Your task to perform on an android device: change the upload size in google photos Image 0: 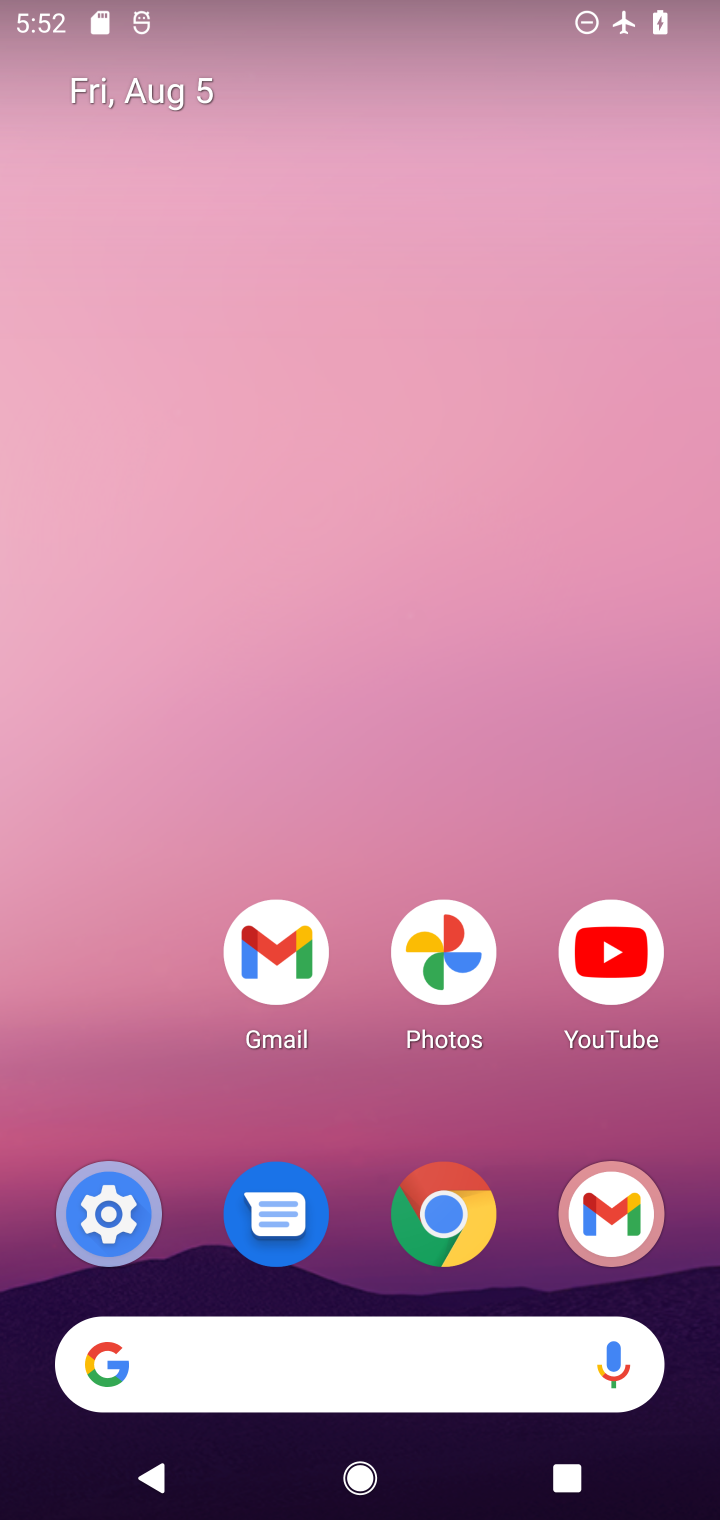
Step 0: click (448, 913)
Your task to perform on an android device: change the upload size in google photos Image 1: 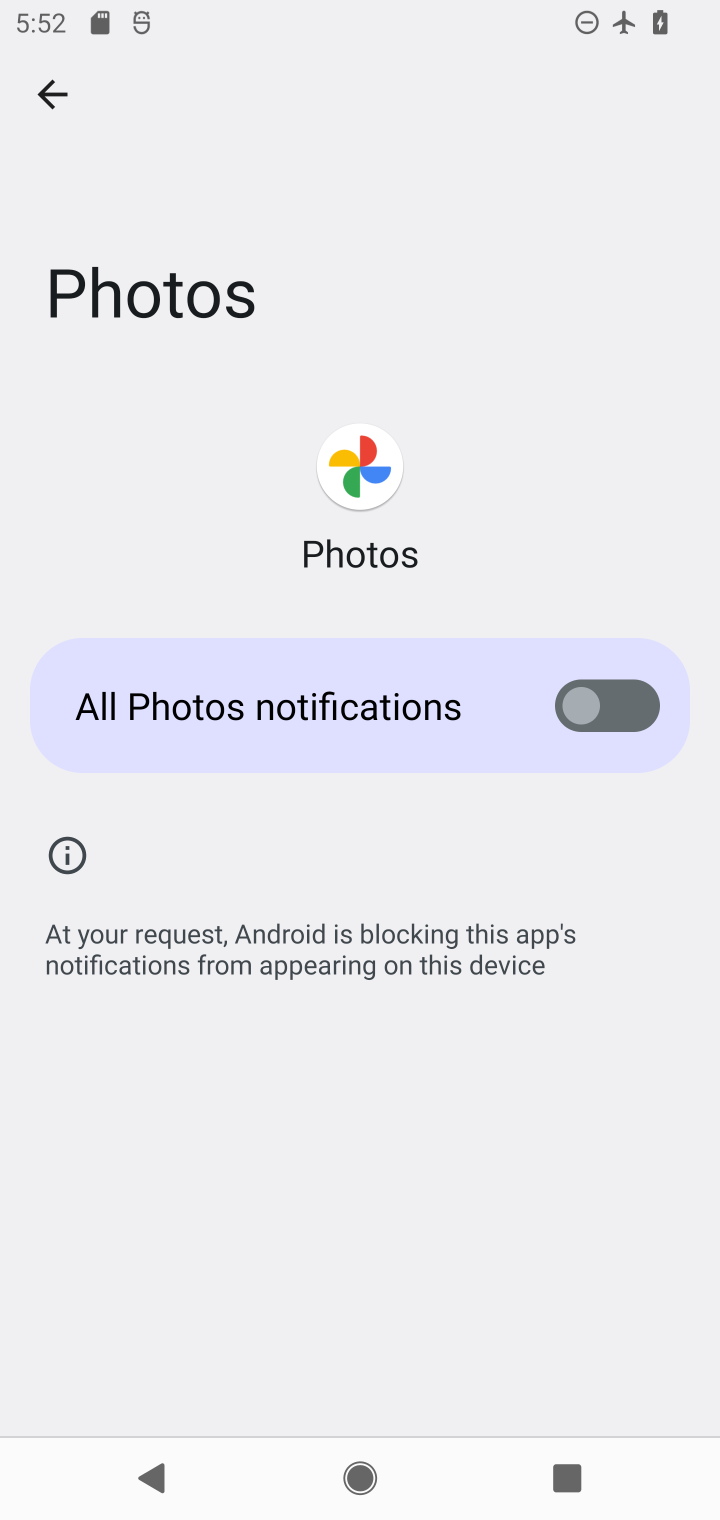
Step 1: click (51, 85)
Your task to perform on an android device: change the upload size in google photos Image 2: 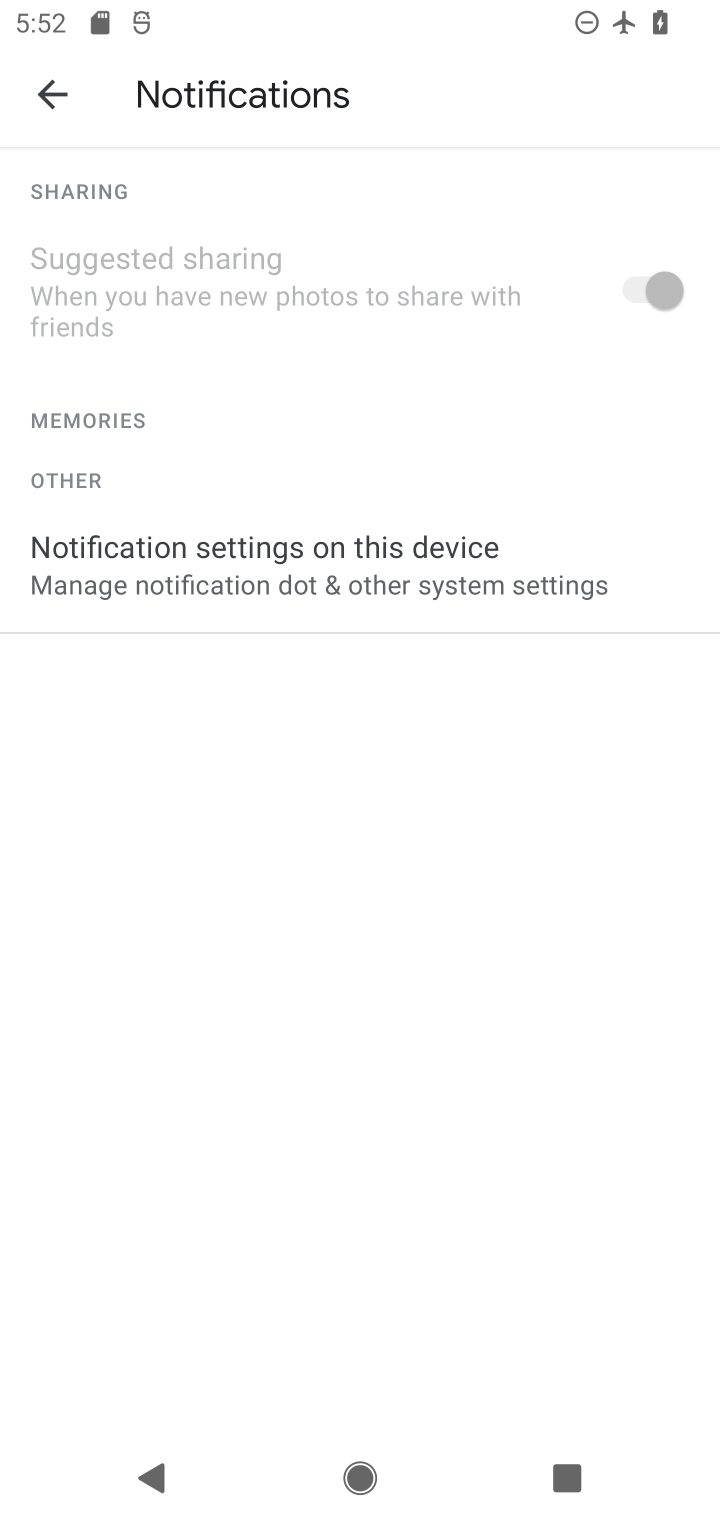
Step 2: click (51, 85)
Your task to perform on an android device: change the upload size in google photos Image 3: 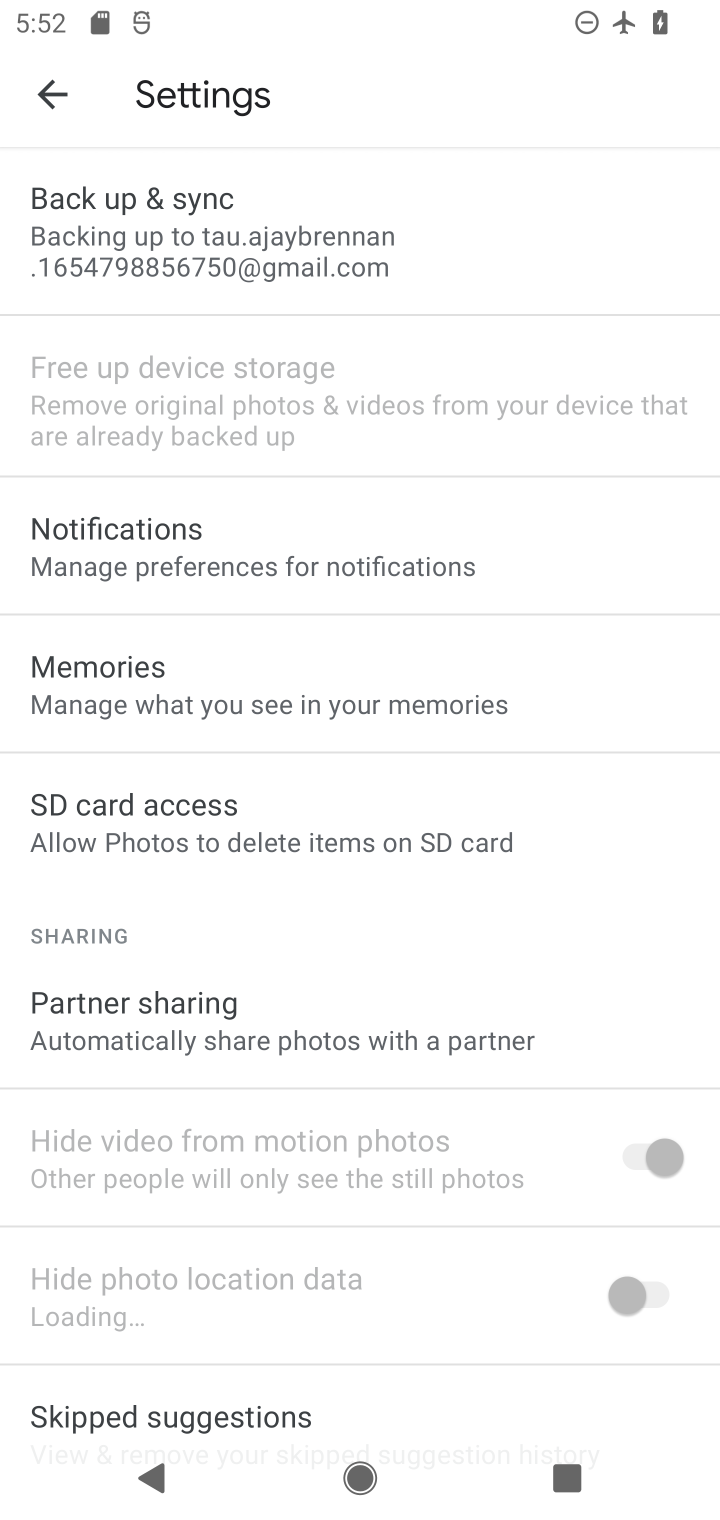
Step 3: click (139, 208)
Your task to perform on an android device: change the upload size in google photos Image 4: 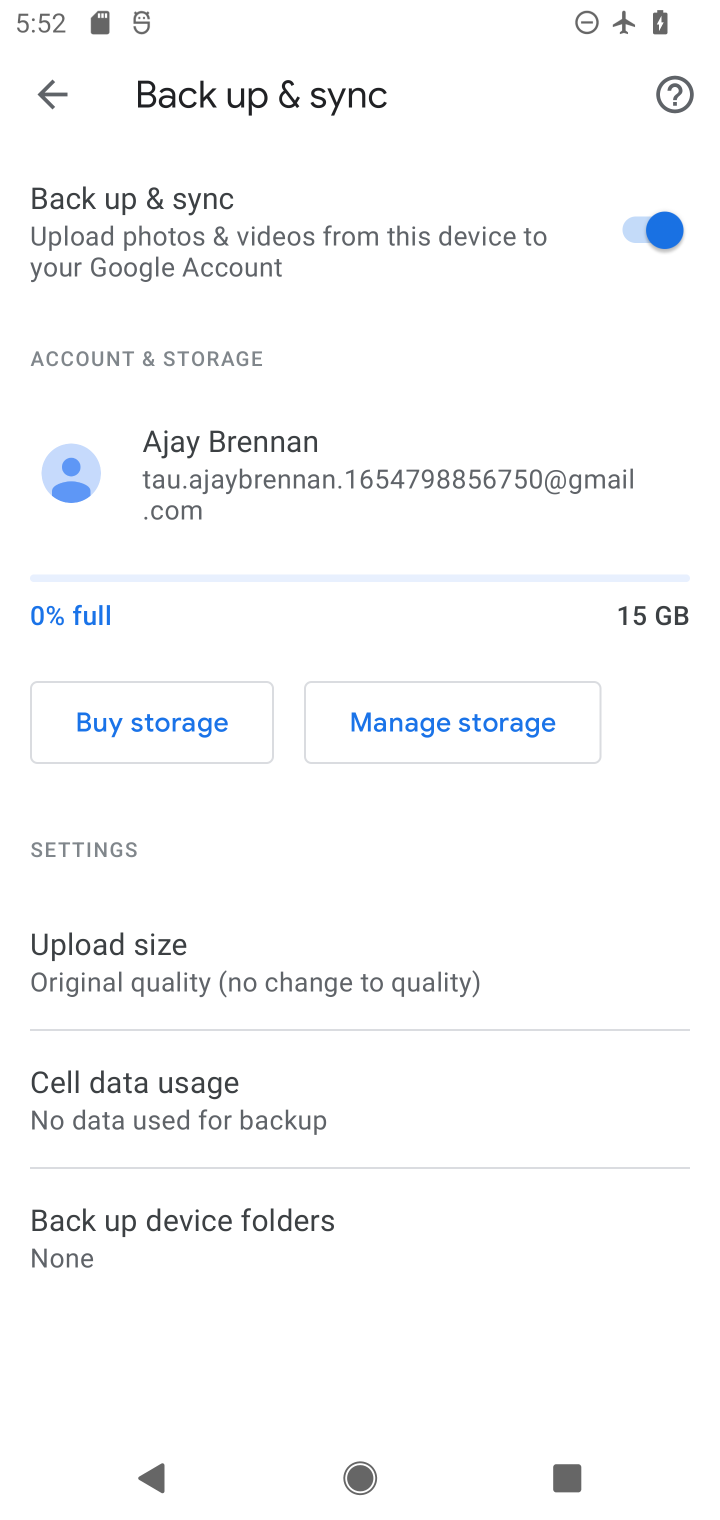
Step 4: click (179, 948)
Your task to perform on an android device: change the upload size in google photos Image 5: 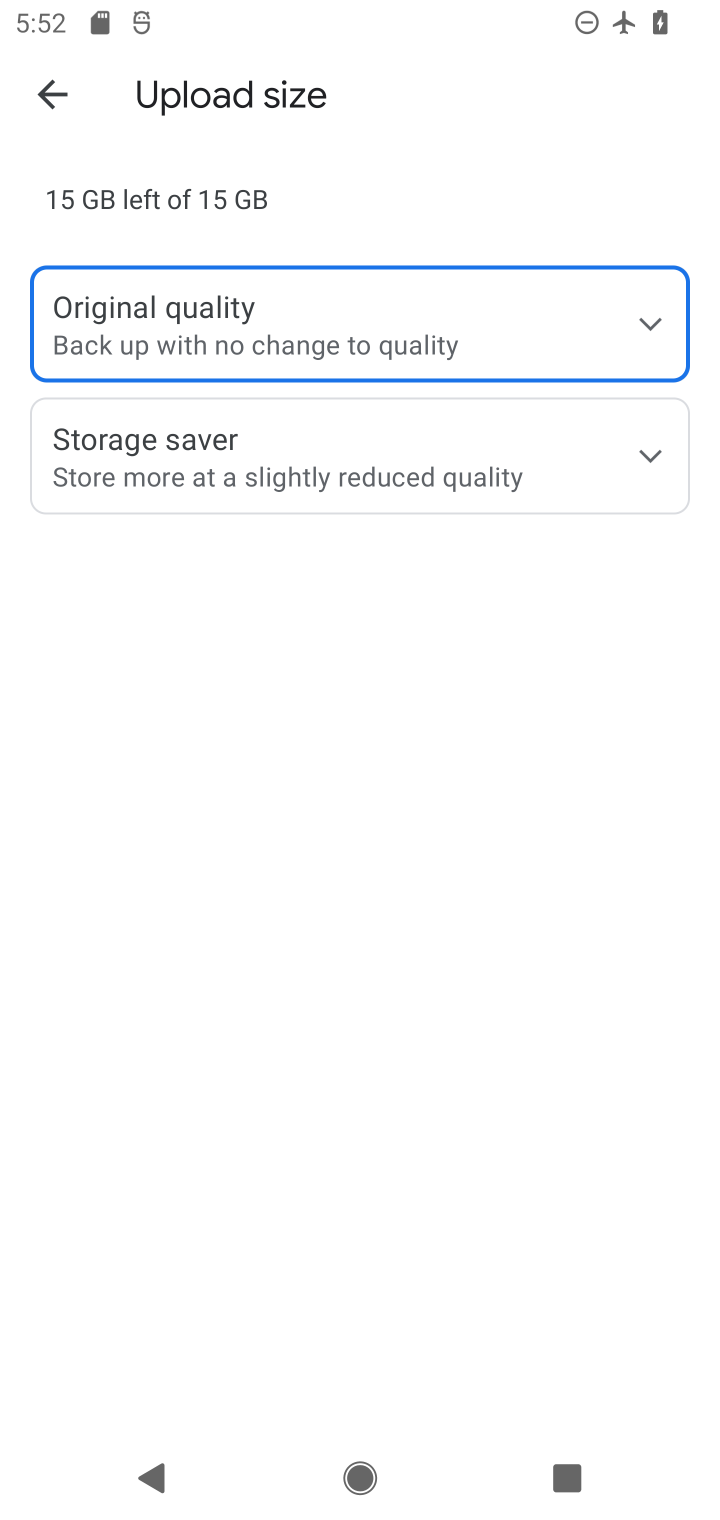
Step 5: click (272, 456)
Your task to perform on an android device: change the upload size in google photos Image 6: 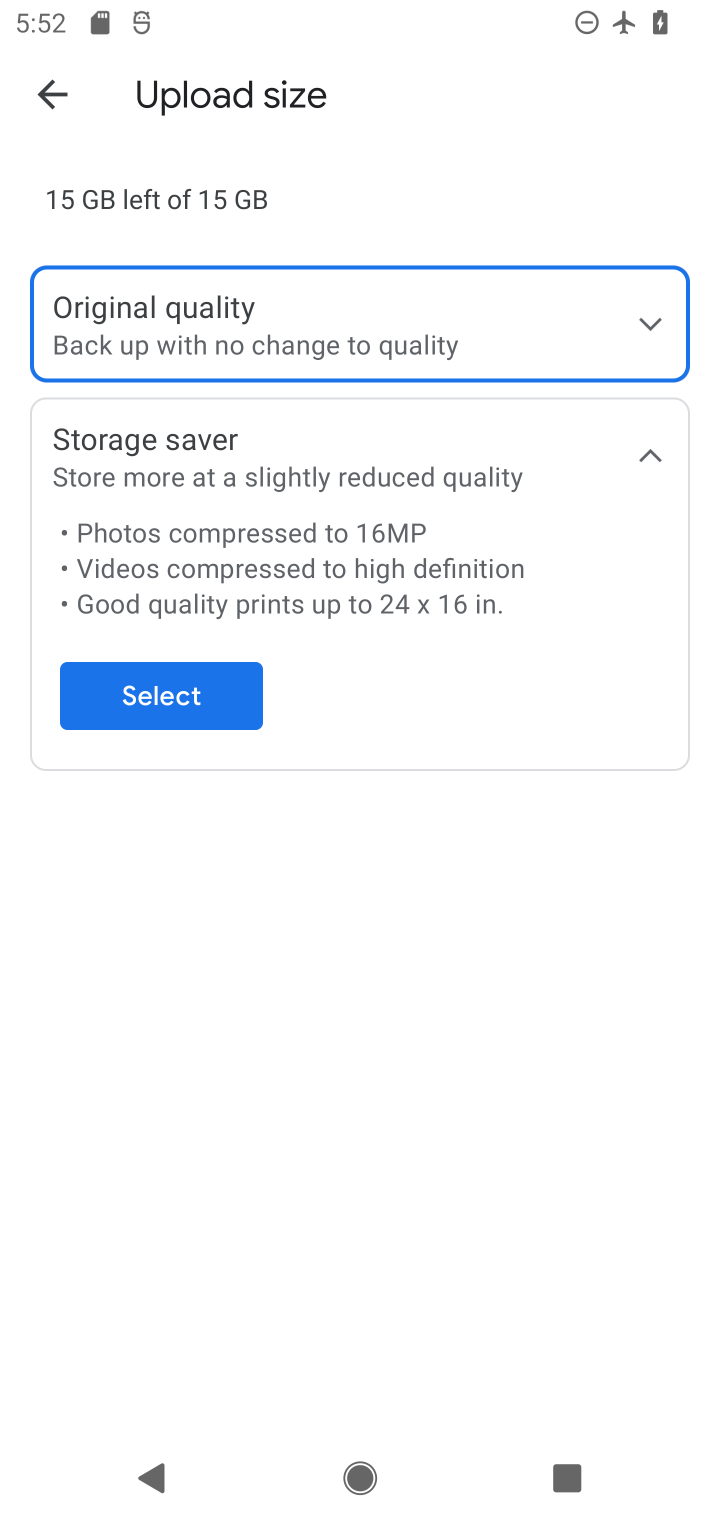
Step 6: click (209, 700)
Your task to perform on an android device: change the upload size in google photos Image 7: 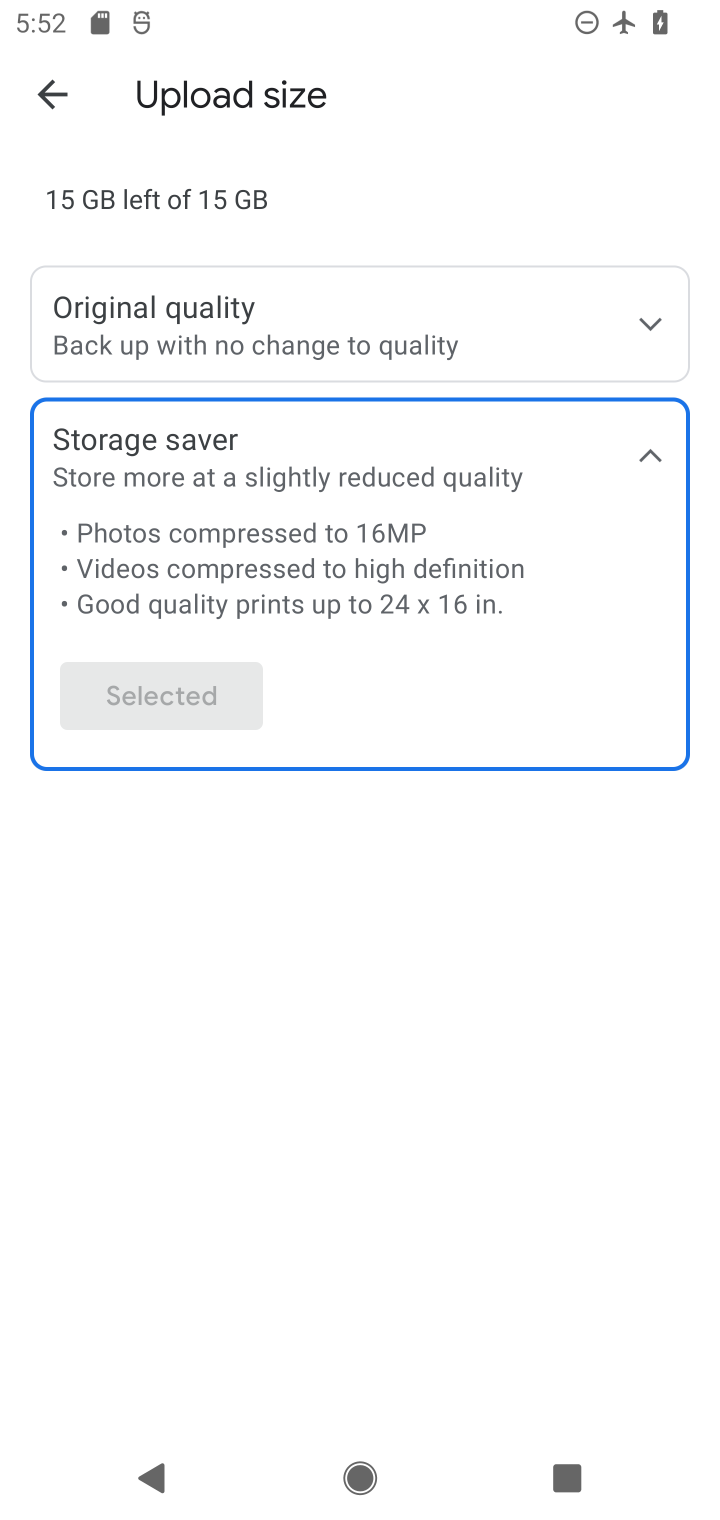
Step 7: task complete